Your task to perform on an android device: all mails in gmail Image 0: 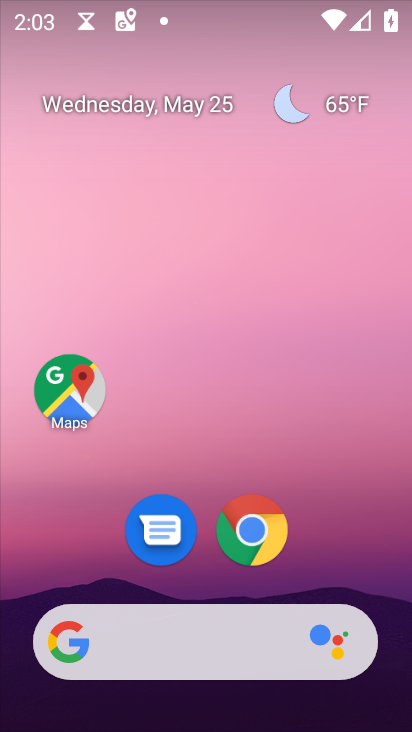
Step 0: drag from (202, 552) to (268, 250)
Your task to perform on an android device: all mails in gmail Image 1: 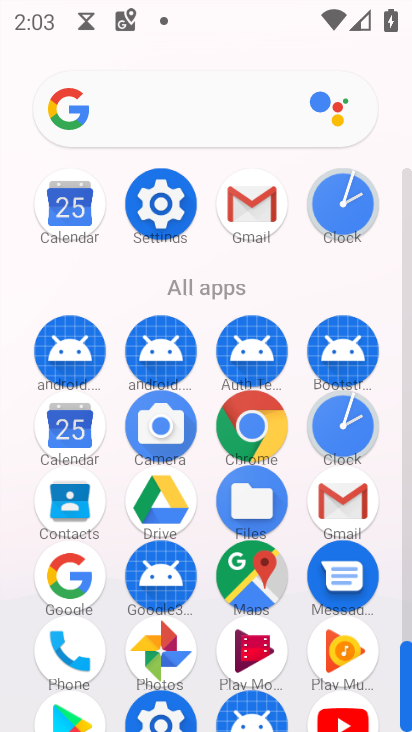
Step 1: click (324, 490)
Your task to perform on an android device: all mails in gmail Image 2: 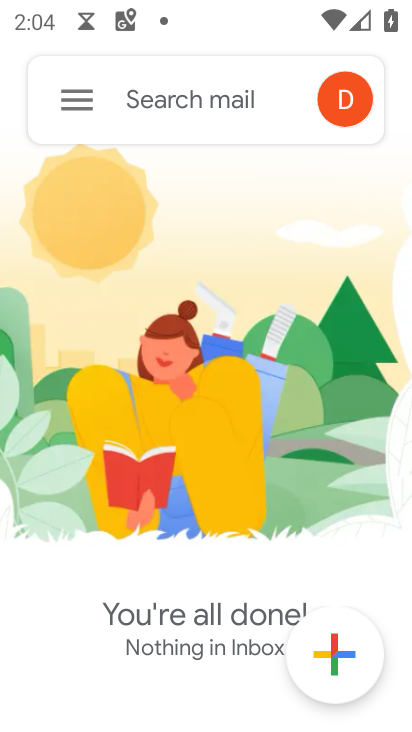
Step 2: click (88, 107)
Your task to perform on an android device: all mails in gmail Image 3: 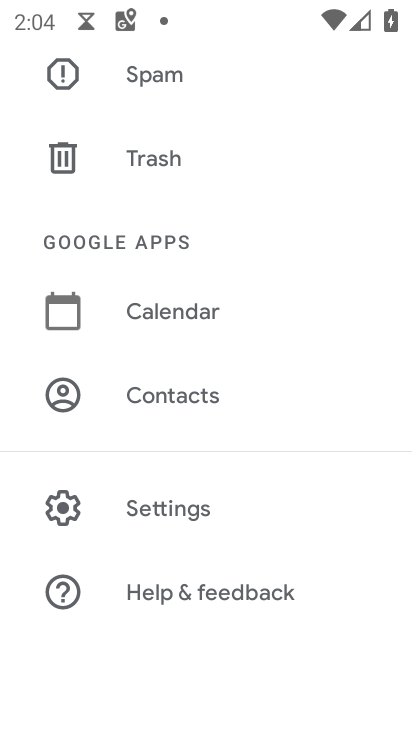
Step 3: drag from (174, 133) to (216, 509)
Your task to perform on an android device: all mails in gmail Image 4: 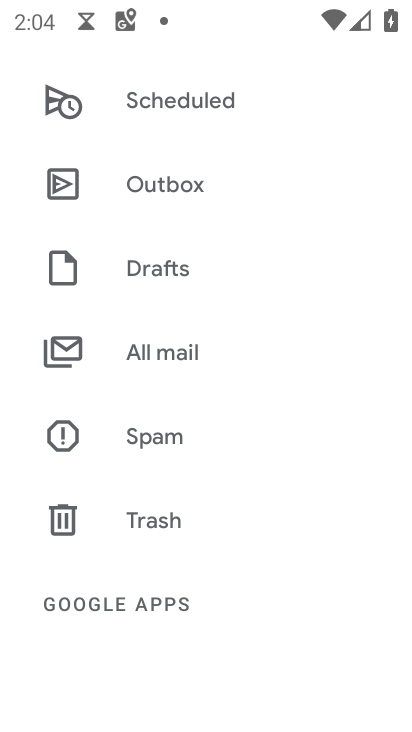
Step 4: click (173, 350)
Your task to perform on an android device: all mails in gmail Image 5: 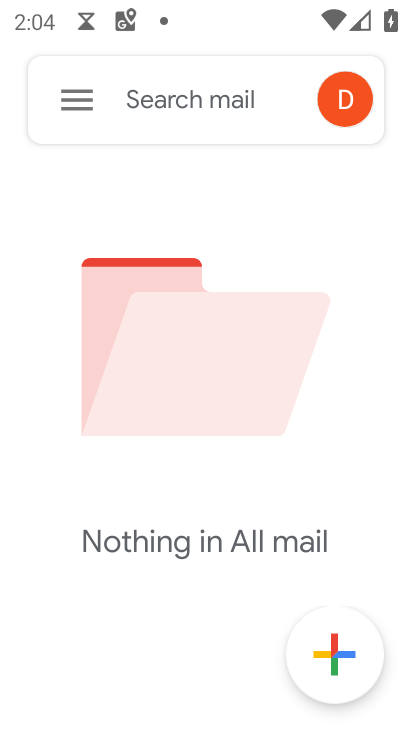
Step 5: task complete